Your task to perform on an android device: change the clock display to analog Image 0: 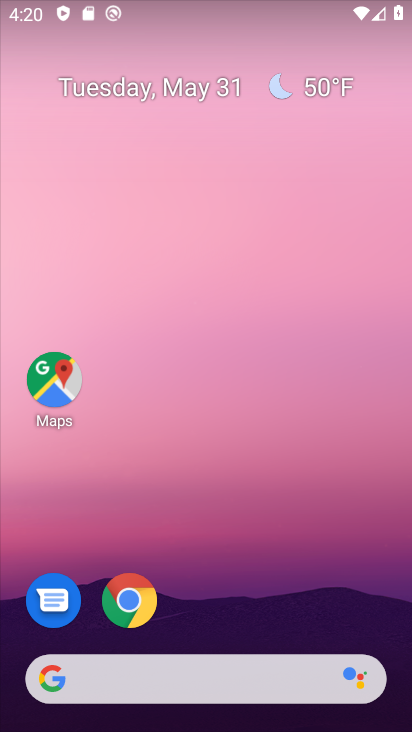
Step 0: drag from (257, 615) to (233, 99)
Your task to perform on an android device: change the clock display to analog Image 1: 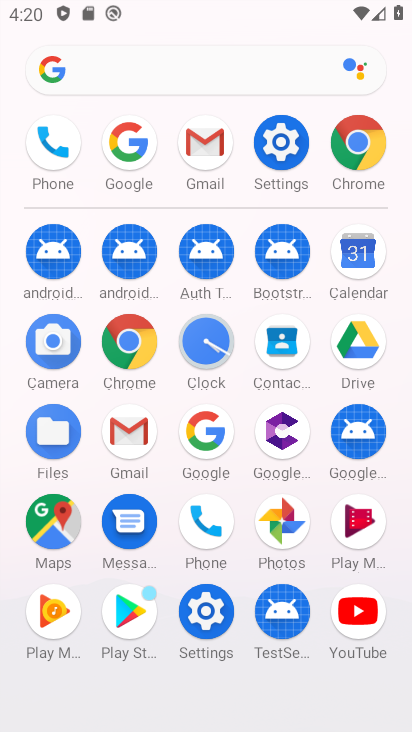
Step 1: click (206, 336)
Your task to perform on an android device: change the clock display to analog Image 2: 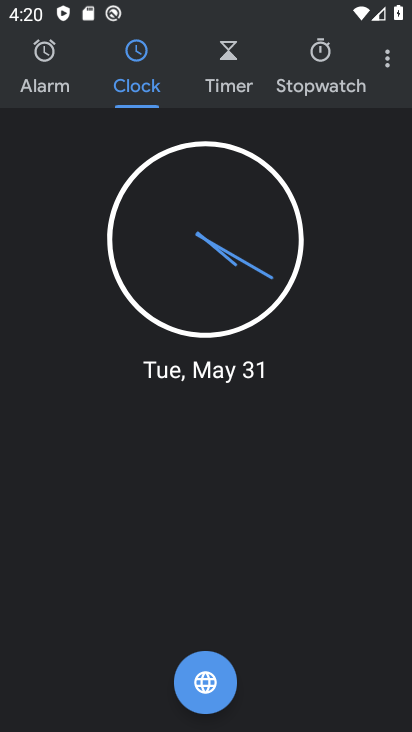
Step 2: click (385, 61)
Your task to perform on an android device: change the clock display to analog Image 3: 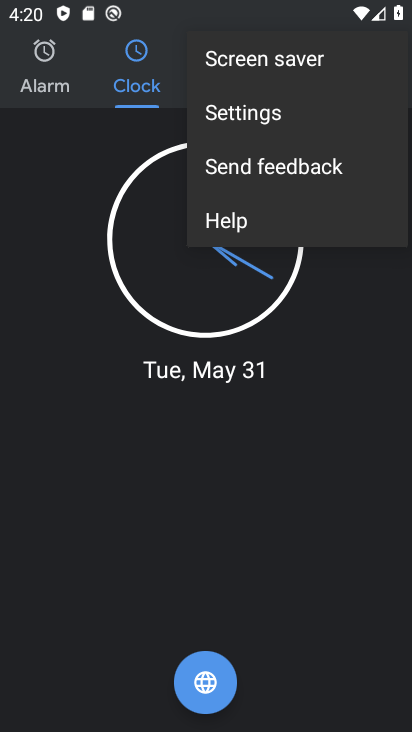
Step 3: click (268, 115)
Your task to perform on an android device: change the clock display to analog Image 4: 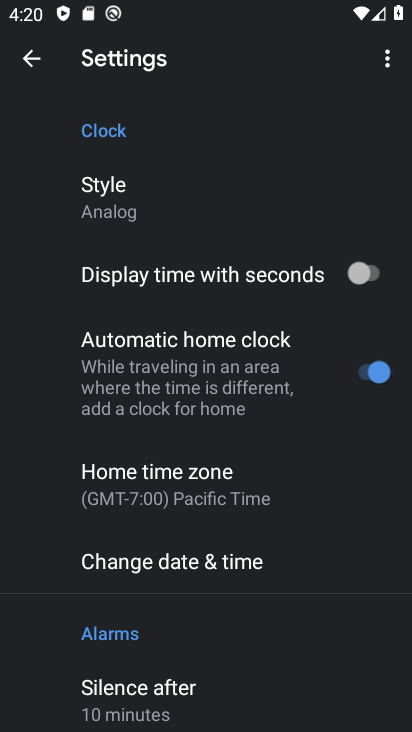
Step 4: click (92, 188)
Your task to perform on an android device: change the clock display to analog Image 5: 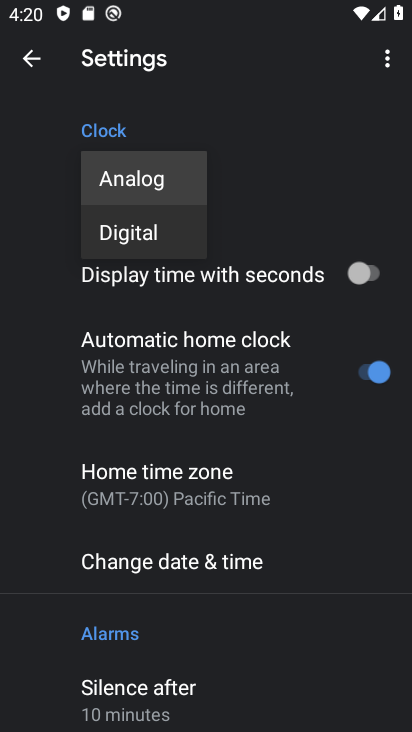
Step 5: click (92, 188)
Your task to perform on an android device: change the clock display to analog Image 6: 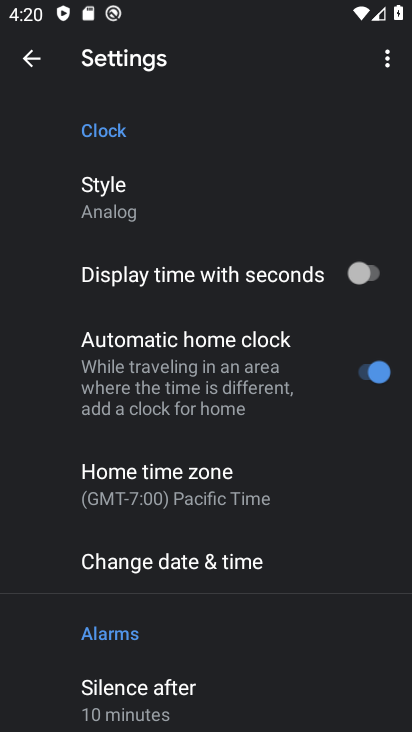
Step 6: task complete